Your task to perform on an android device: When is my next meeting? Image 0: 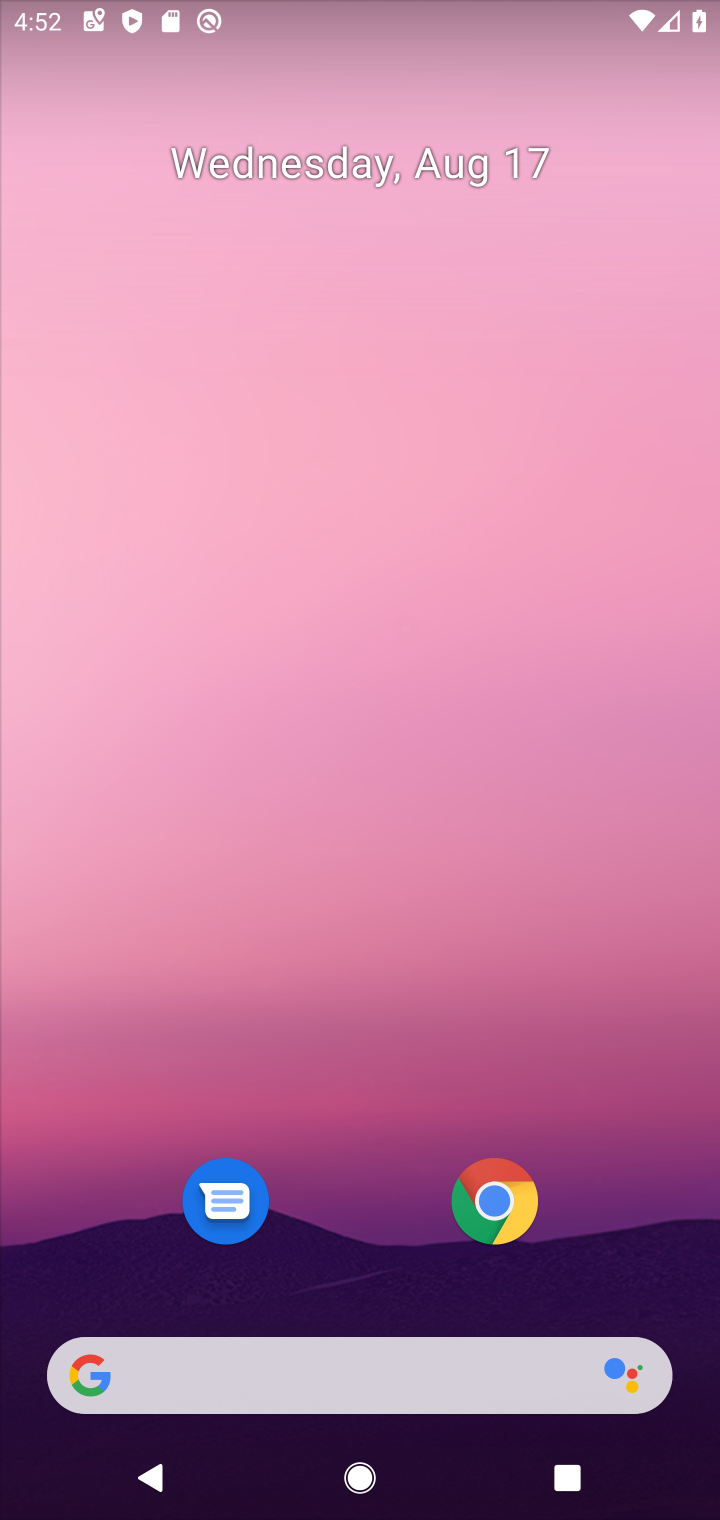
Step 0: drag from (440, 25) to (37, 5)
Your task to perform on an android device: When is my next meeting? Image 1: 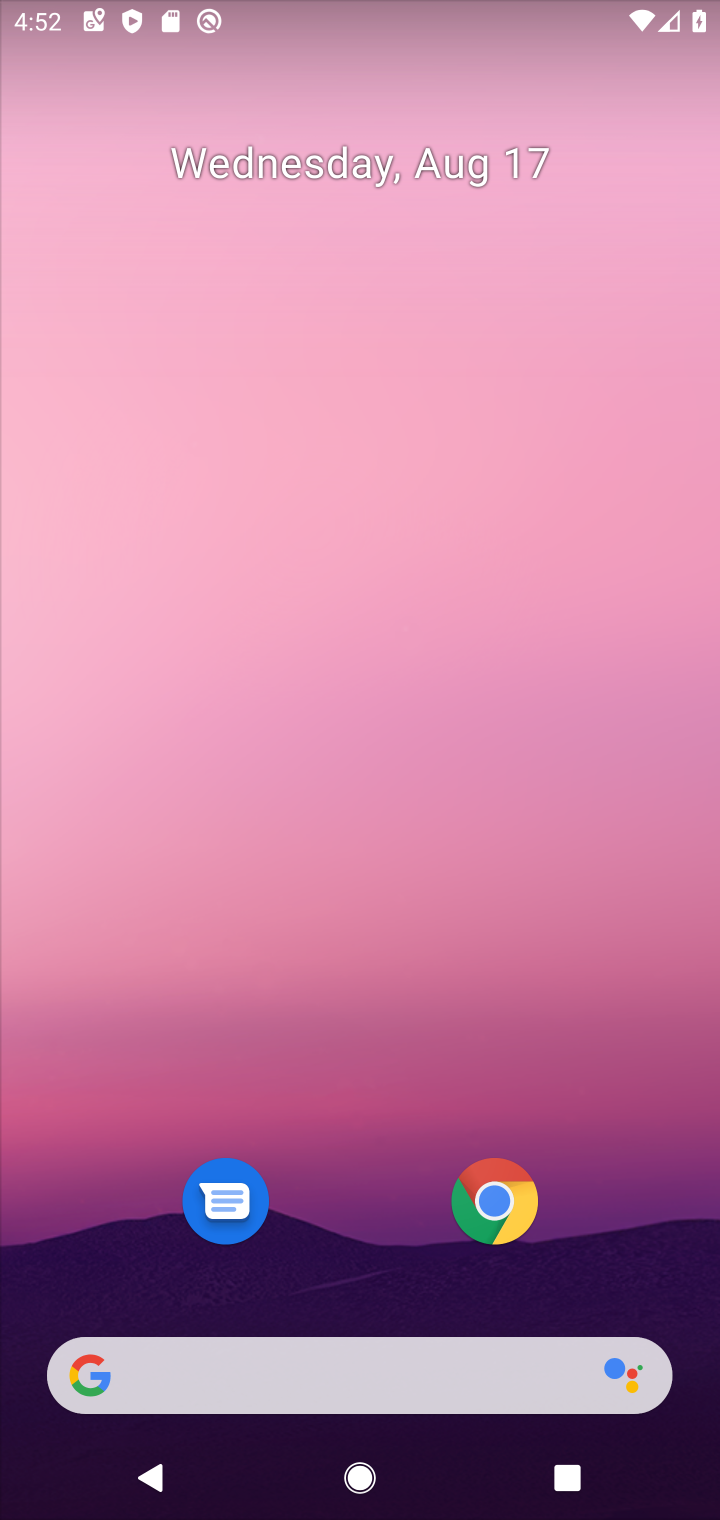
Step 1: drag from (375, 1262) to (581, 100)
Your task to perform on an android device: When is my next meeting? Image 2: 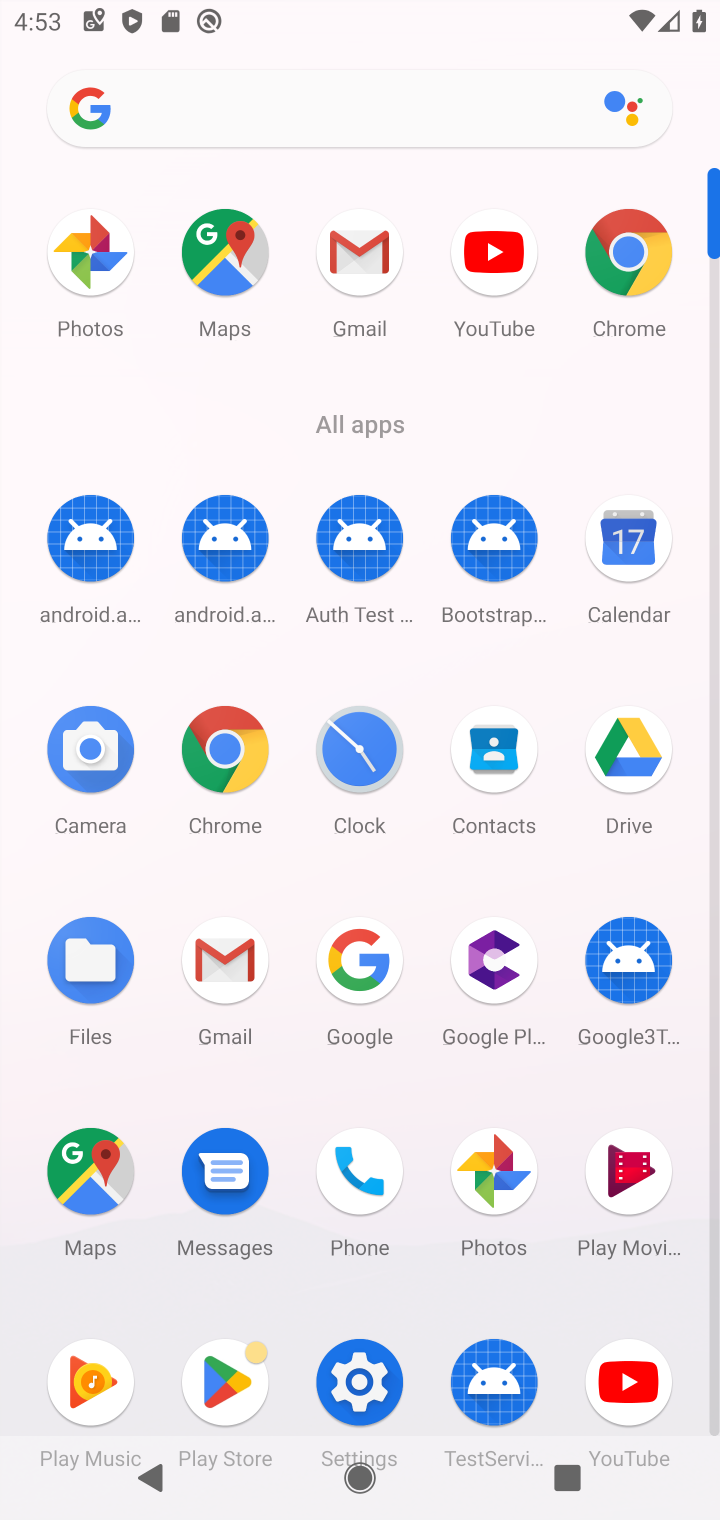
Step 2: click (613, 564)
Your task to perform on an android device: When is my next meeting? Image 3: 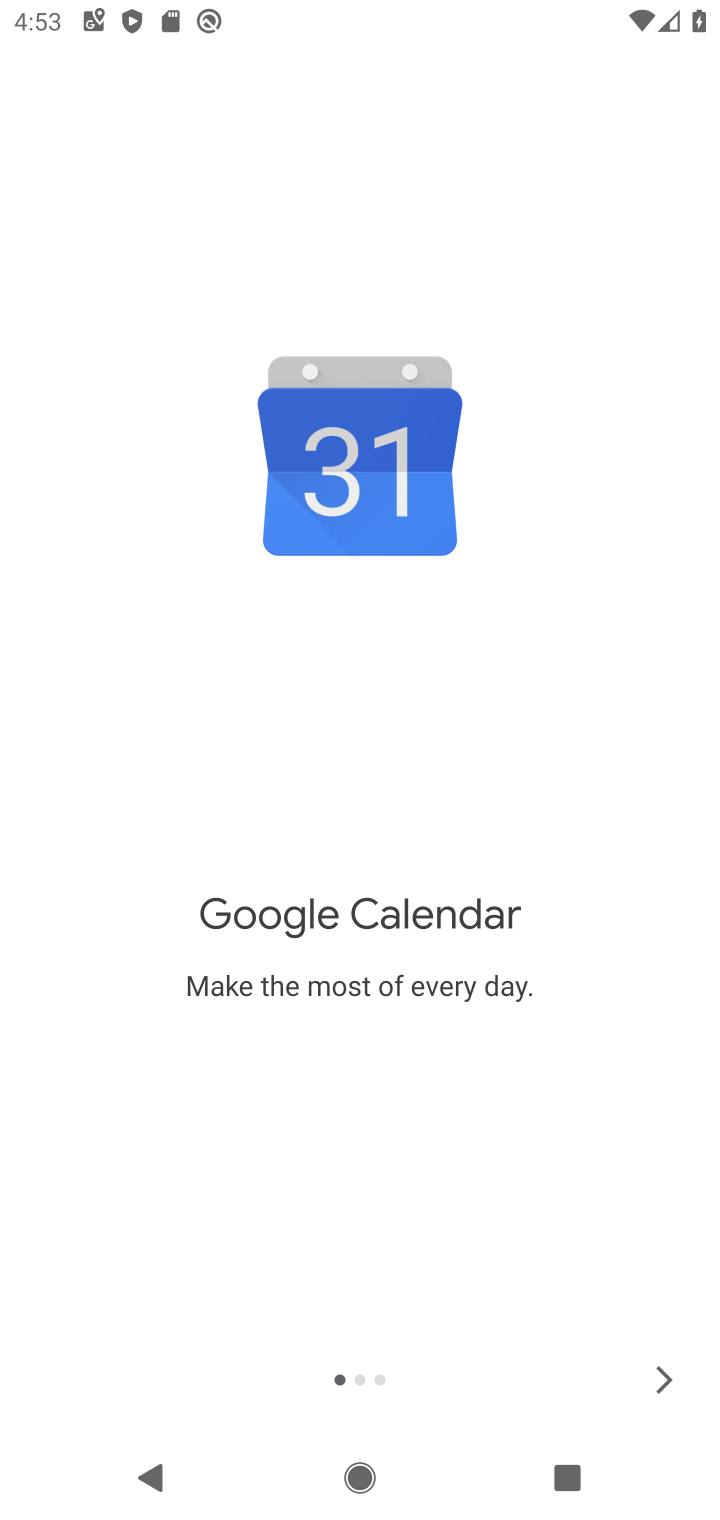
Step 3: click (649, 1404)
Your task to perform on an android device: When is my next meeting? Image 4: 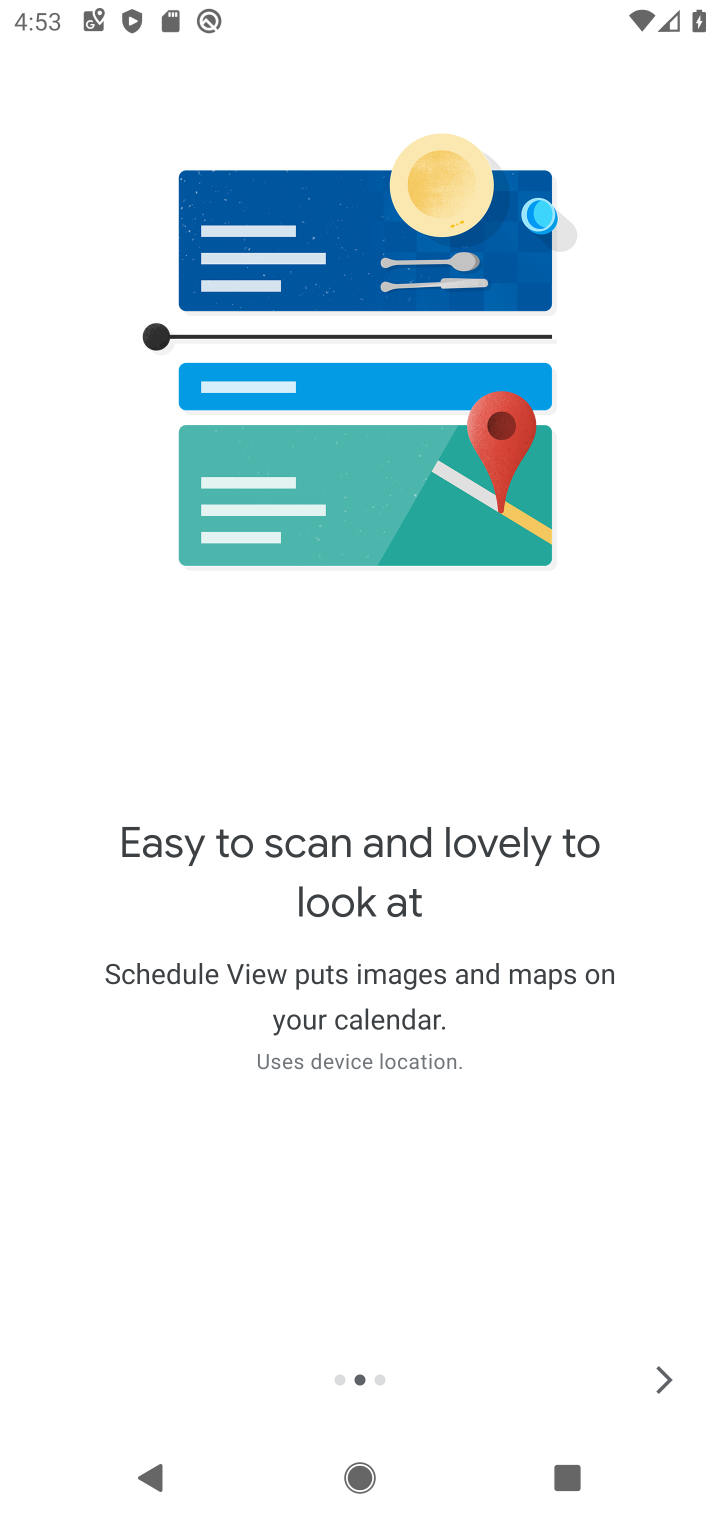
Step 4: click (659, 1418)
Your task to perform on an android device: When is my next meeting? Image 5: 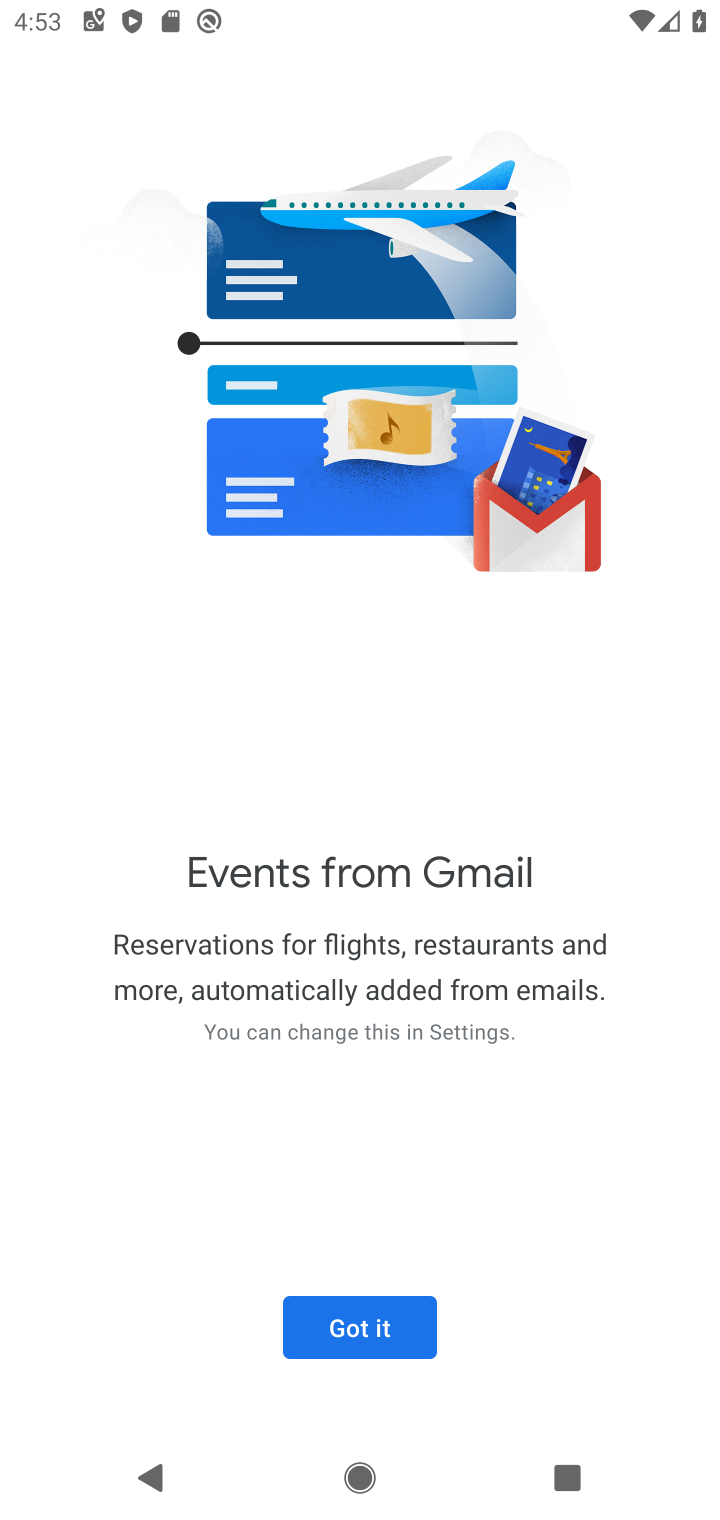
Step 5: click (328, 1293)
Your task to perform on an android device: When is my next meeting? Image 6: 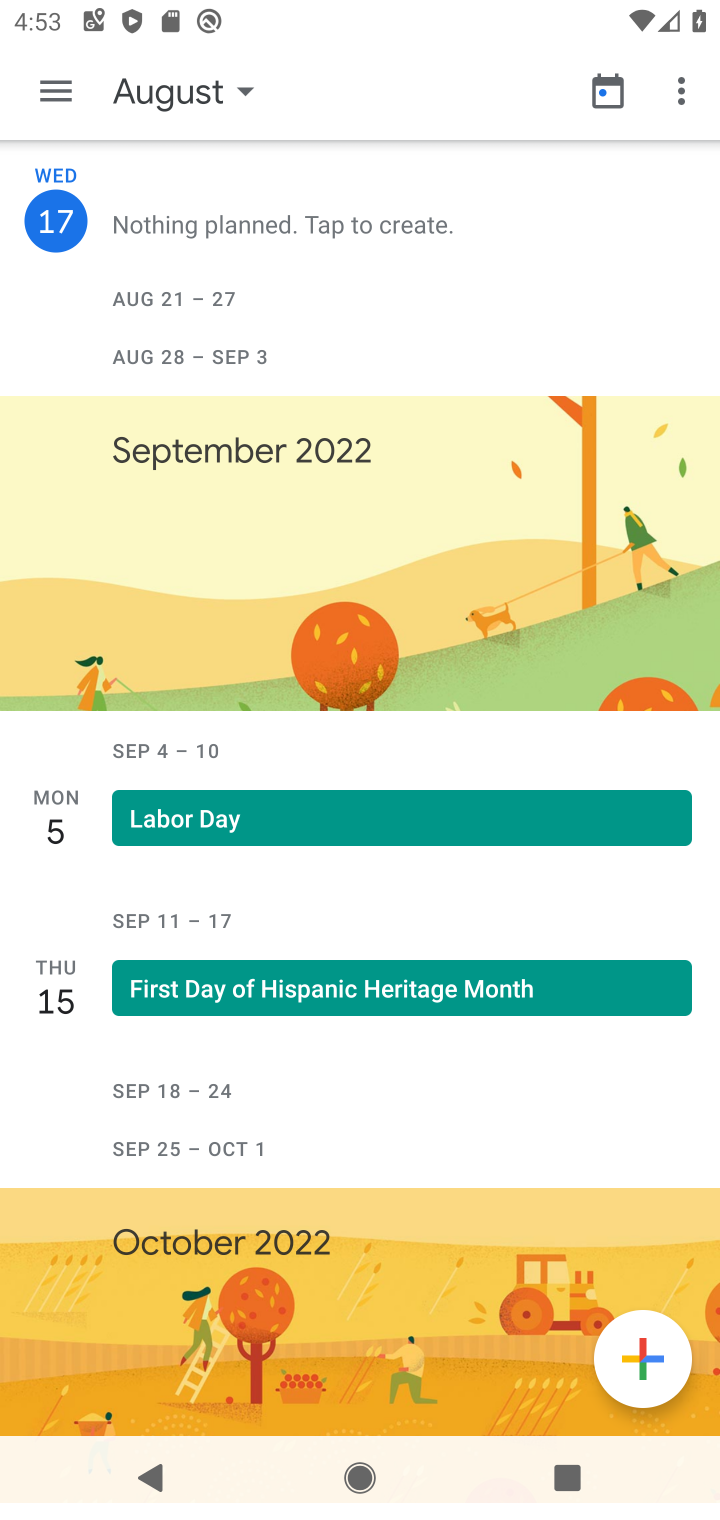
Step 6: click (55, 89)
Your task to perform on an android device: When is my next meeting? Image 7: 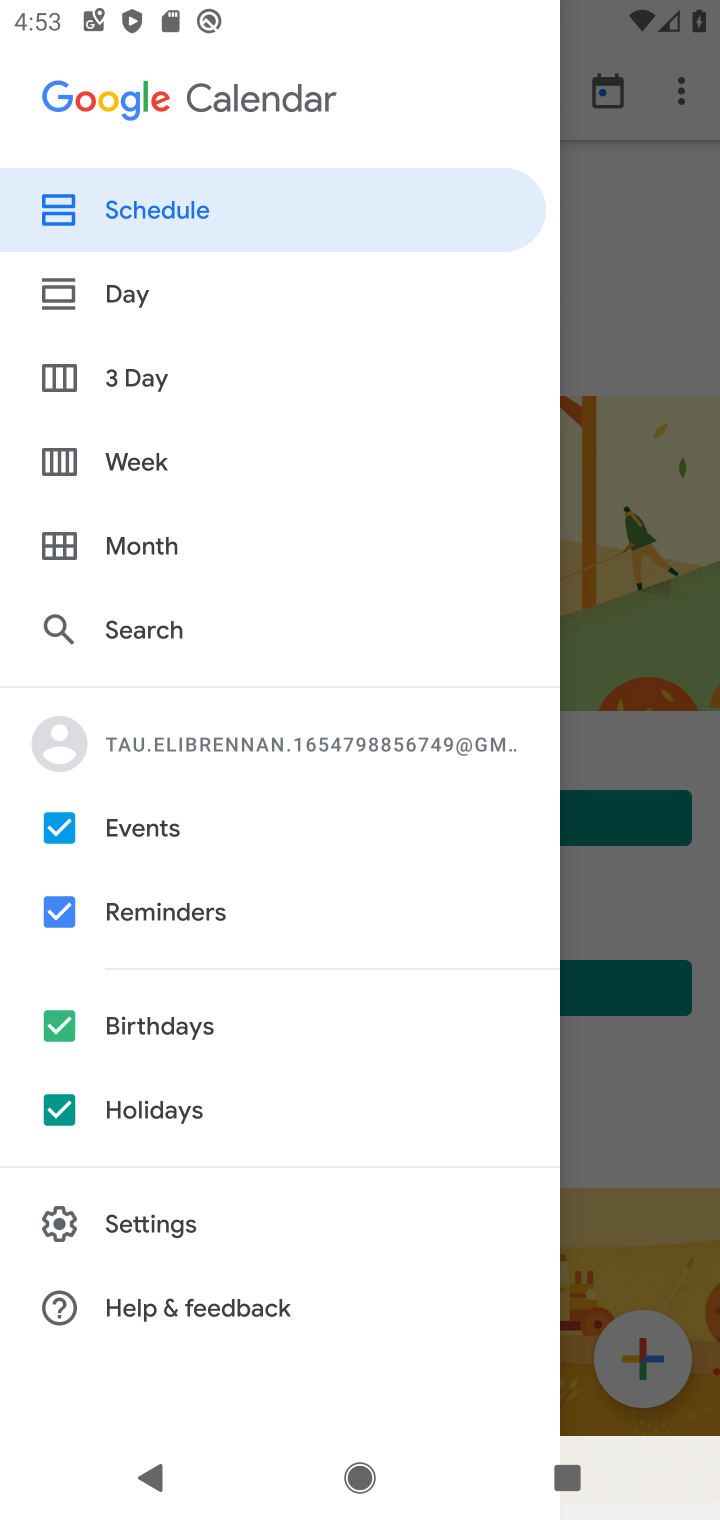
Step 7: click (140, 229)
Your task to perform on an android device: When is my next meeting? Image 8: 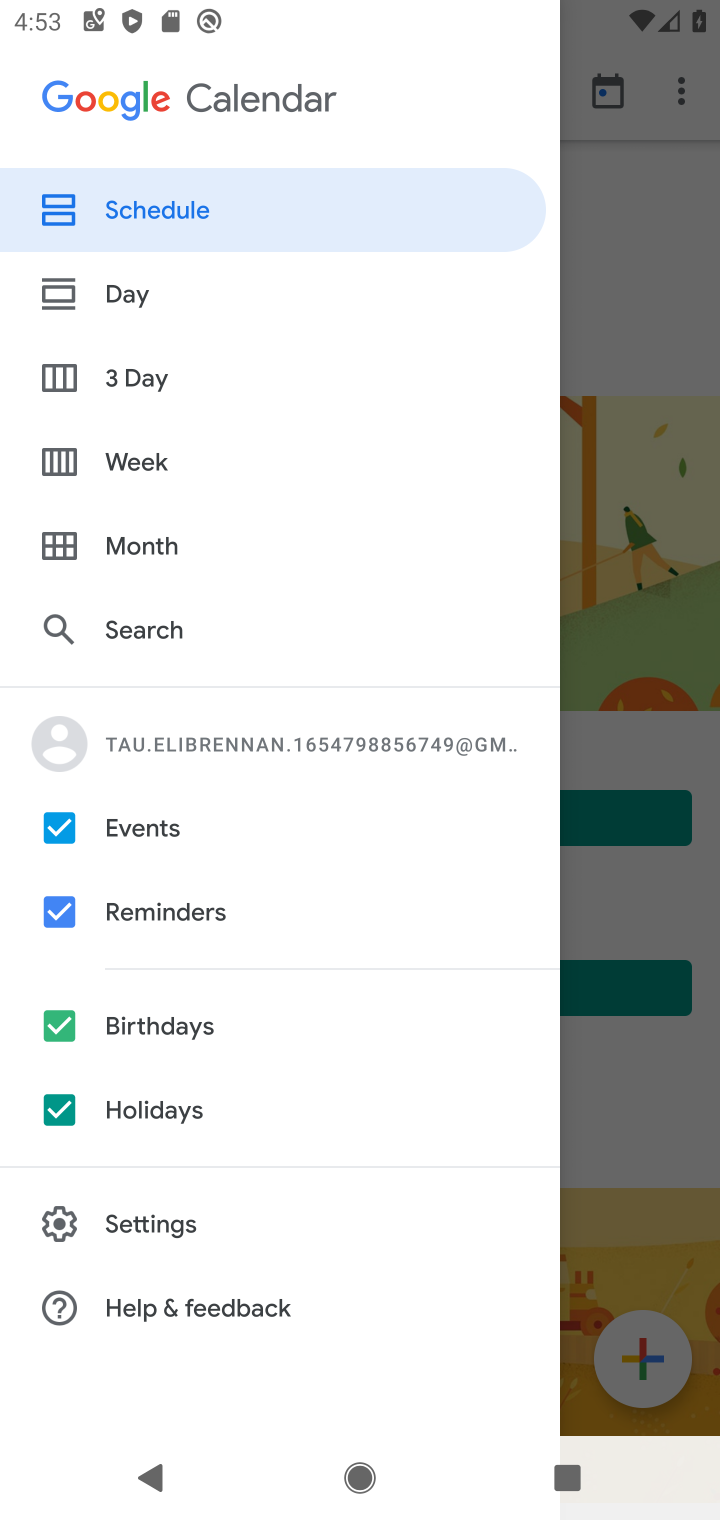
Step 8: click (194, 213)
Your task to perform on an android device: When is my next meeting? Image 9: 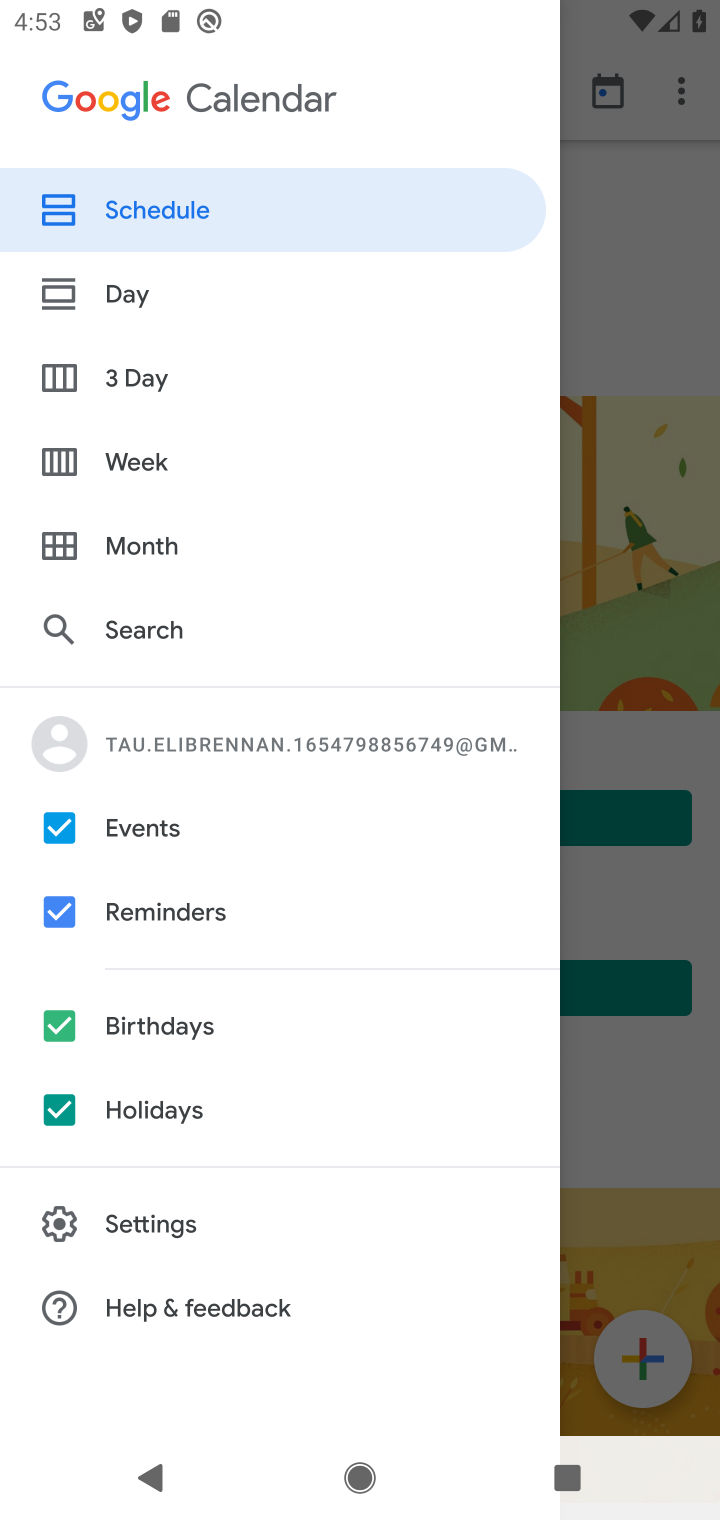
Step 9: click (181, 228)
Your task to perform on an android device: When is my next meeting? Image 10: 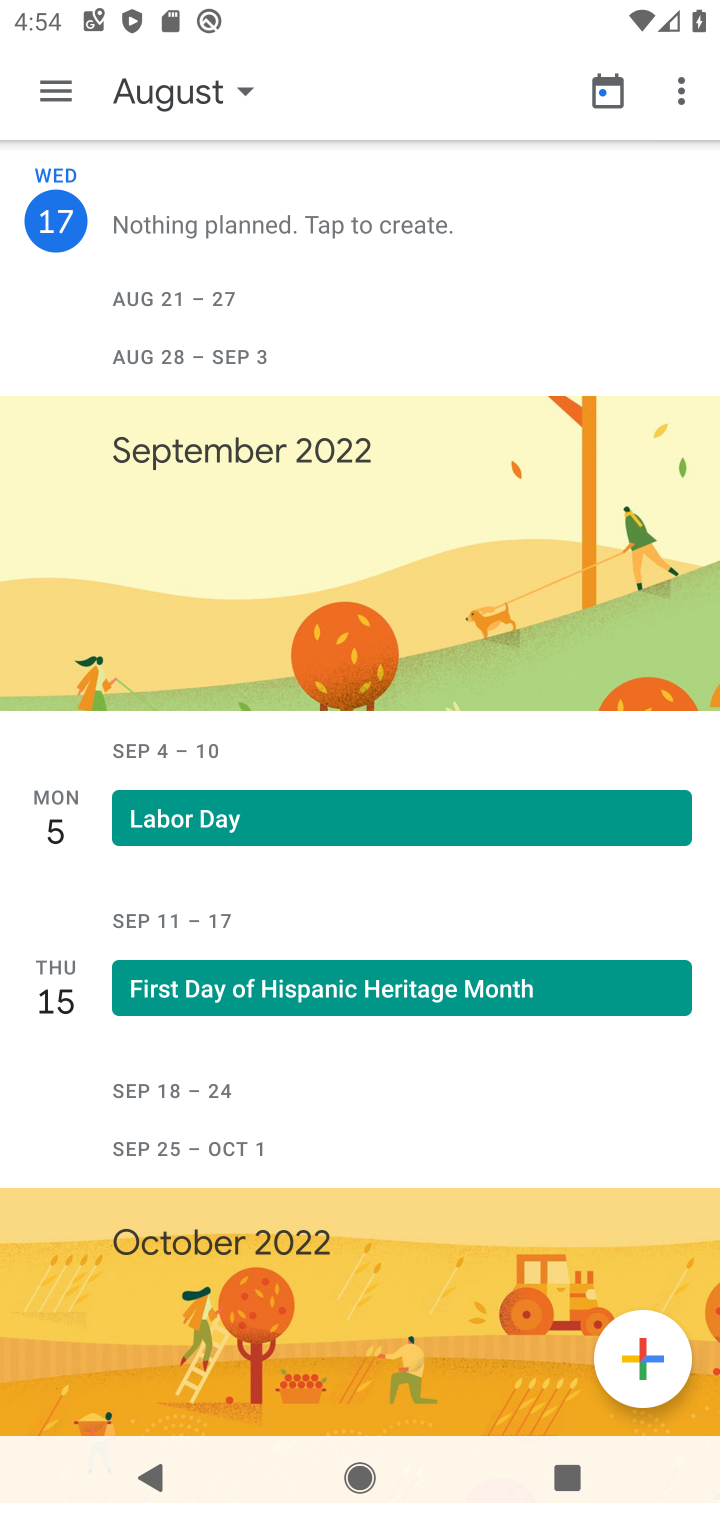
Step 10: task complete